Your task to perform on an android device: open wifi settings Image 0: 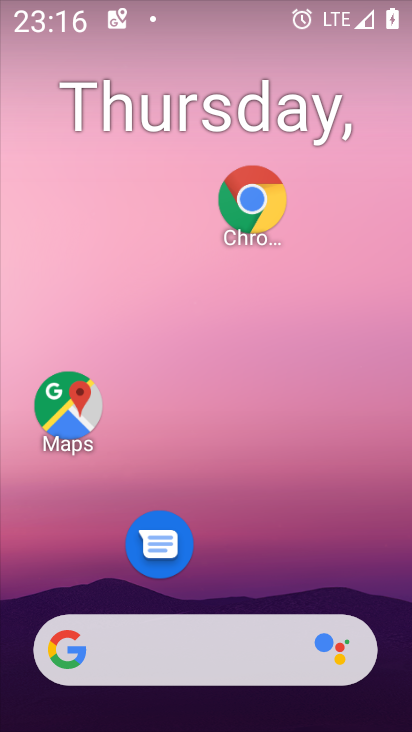
Step 0: drag from (205, 9) to (175, 533)
Your task to perform on an android device: open wifi settings Image 1: 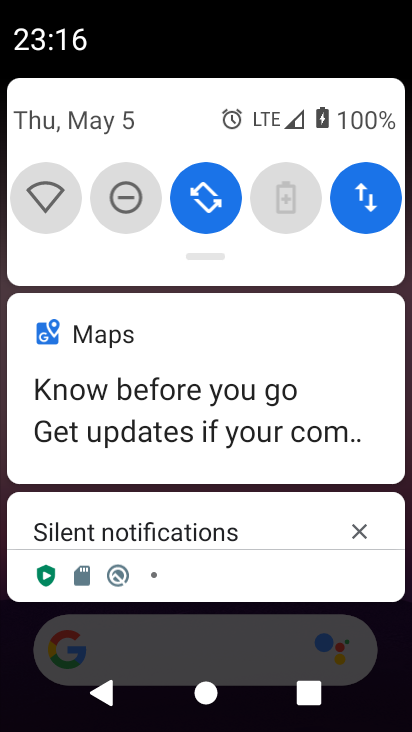
Step 1: click (68, 209)
Your task to perform on an android device: open wifi settings Image 2: 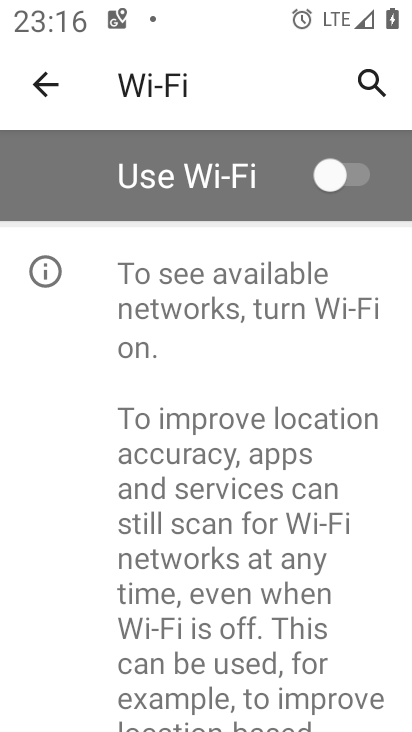
Step 2: task complete